Your task to perform on an android device: turn off improve location accuracy Image 0: 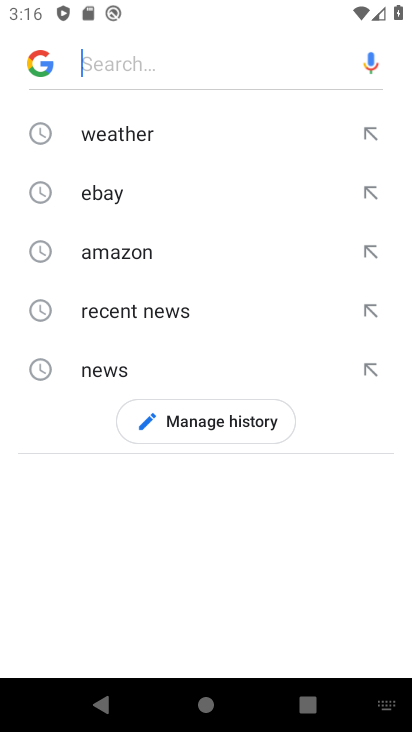
Step 0: press home button
Your task to perform on an android device: turn off improve location accuracy Image 1: 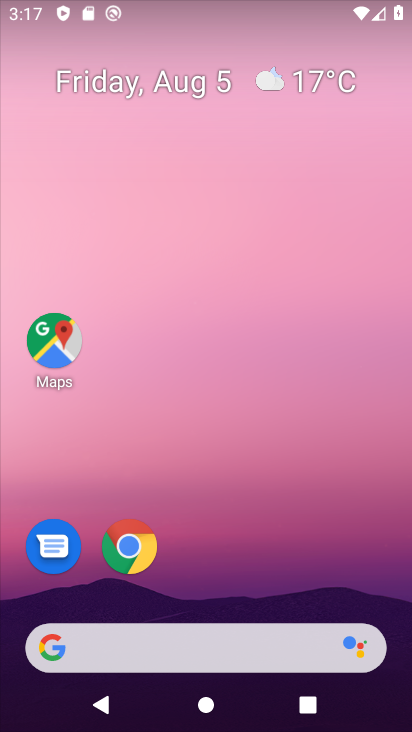
Step 1: drag from (311, 528) to (338, 137)
Your task to perform on an android device: turn off improve location accuracy Image 2: 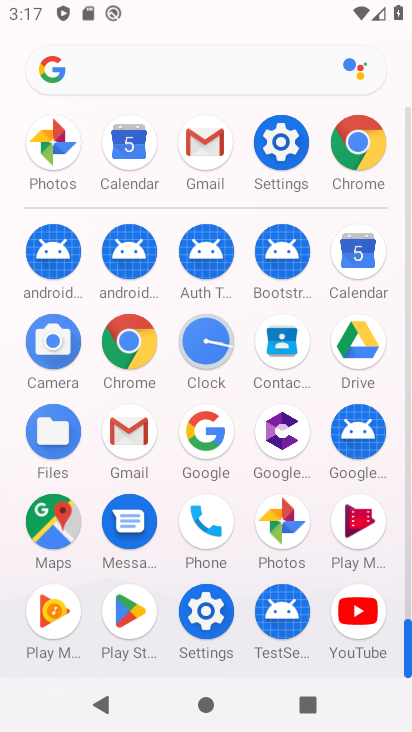
Step 2: click (283, 146)
Your task to perform on an android device: turn off improve location accuracy Image 3: 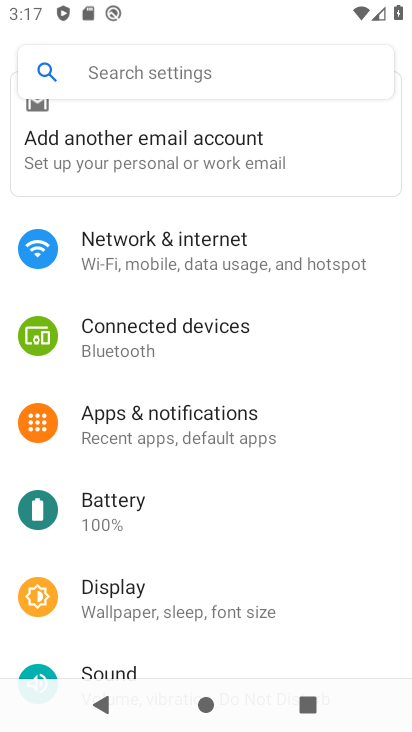
Step 3: drag from (321, 515) to (322, 355)
Your task to perform on an android device: turn off improve location accuracy Image 4: 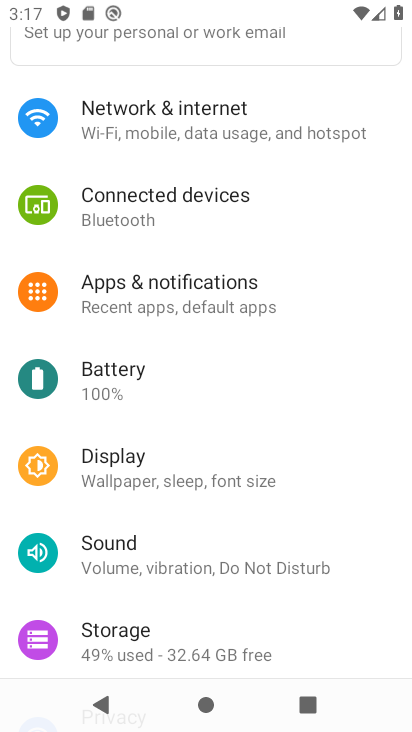
Step 4: drag from (336, 541) to (334, 365)
Your task to perform on an android device: turn off improve location accuracy Image 5: 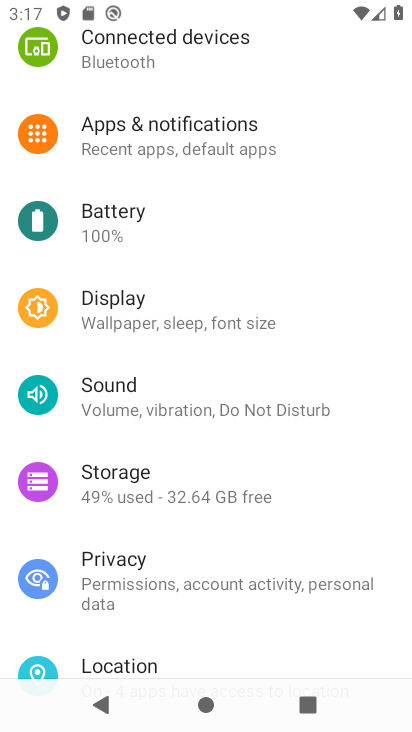
Step 5: drag from (354, 513) to (340, 368)
Your task to perform on an android device: turn off improve location accuracy Image 6: 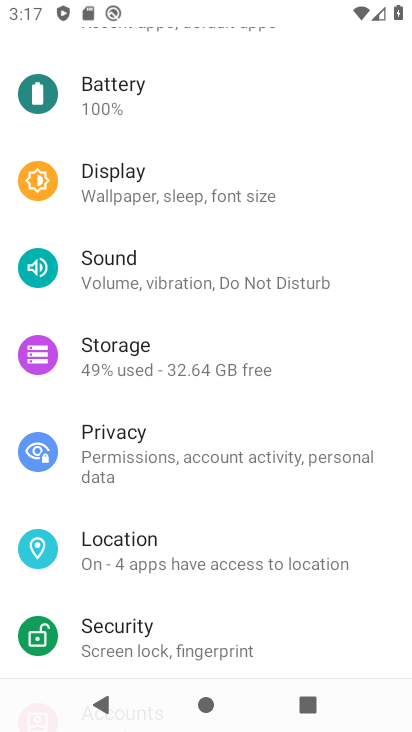
Step 6: drag from (359, 601) to (358, 435)
Your task to perform on an android device: turn off improve location accuracy Image 7: 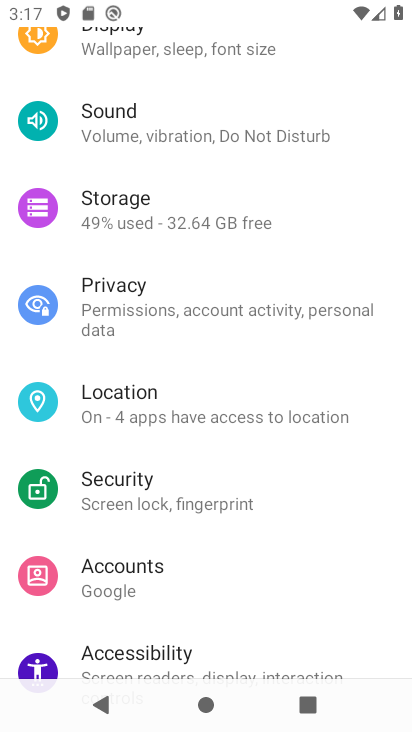
Step 7: drag from (368, 568) to (365, 393)
Your task to perform on an android device: turn off improve location accuracy Image 8: 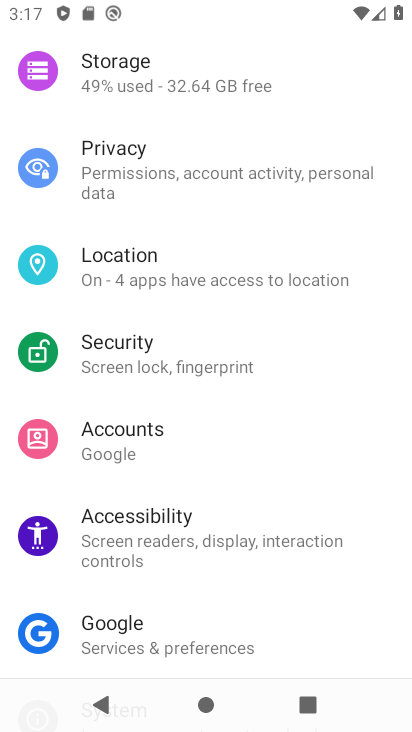
Step 8: drag from (357, 608) to (356, 437)
Your task to perform on an android device: turn off improve location accuracy Image 9: 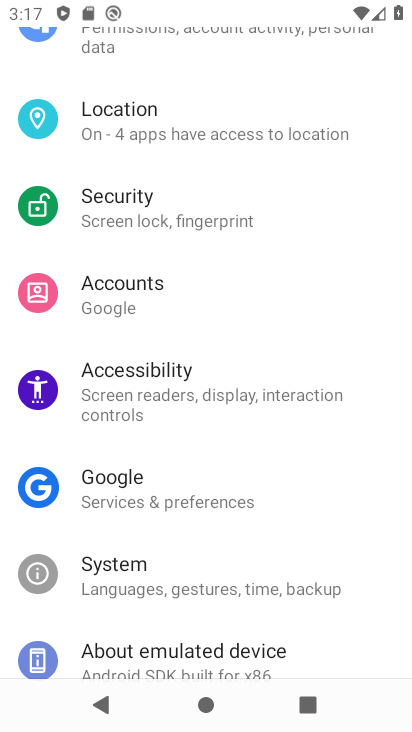
Step 9: drag from (348, 626) to (343, 492)
Your task to perform on an android device: turn off improve location accuracy Image 10: 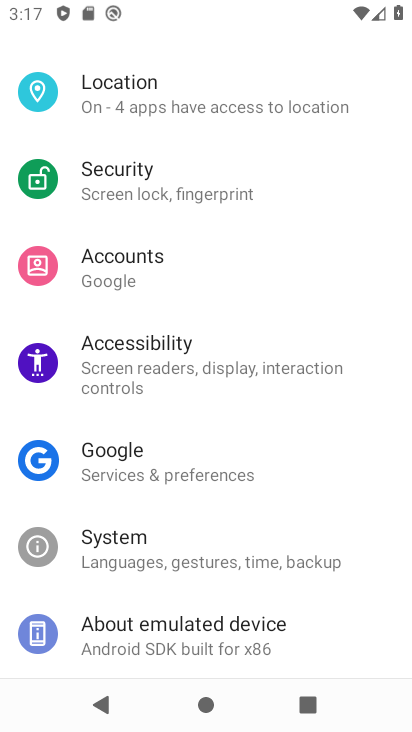
Step 10: drag from (356, 322) to (354, 491)
Your task to perform on an android device: turn off improve location accuracy Image 11: 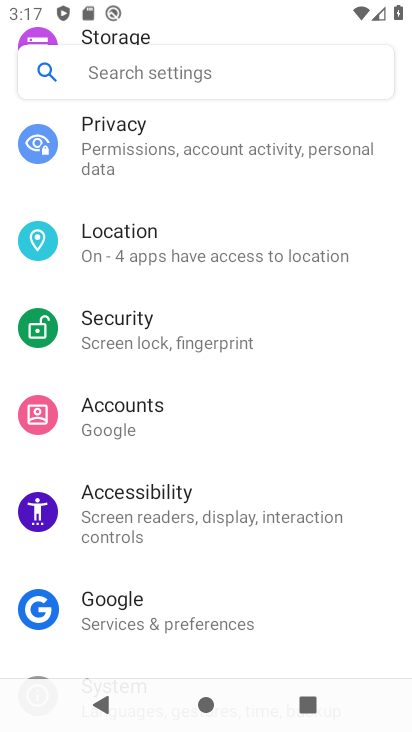
Step 11: drag from (361, 349) to (362, 512)
Your task to perform on an android device: turn off improve location accuracy Image 12: 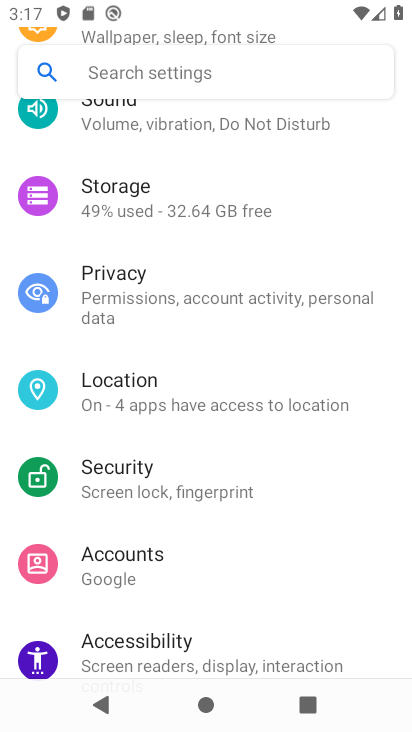
Step 12: drag from (366, 315) to (354, 466)
Your task to perform on an android device: turn off improve location accuracy Image 13: 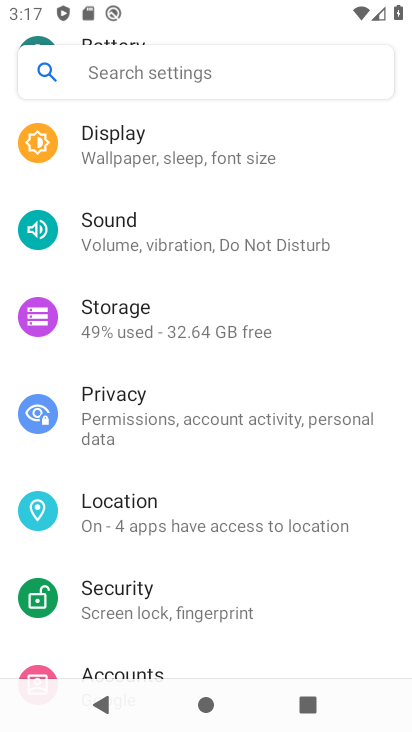
Step 13: click (339, 500)
Your task to perform on an android device: turn off improve location accuracy Image 14: 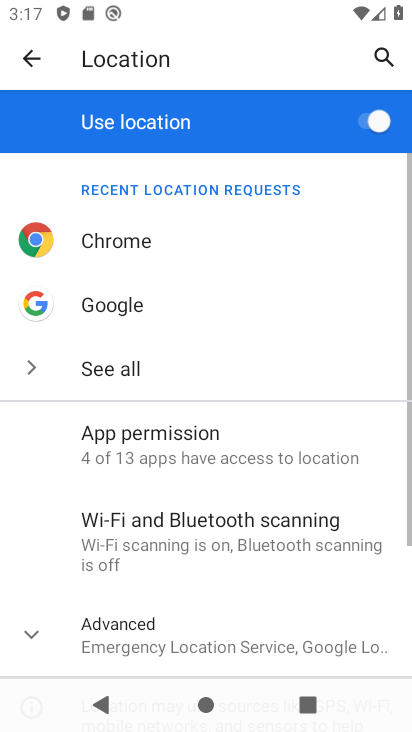
Step 14: click (219, 634)
Your task to perform on an android device: turn off improve location accuracy Image 15: 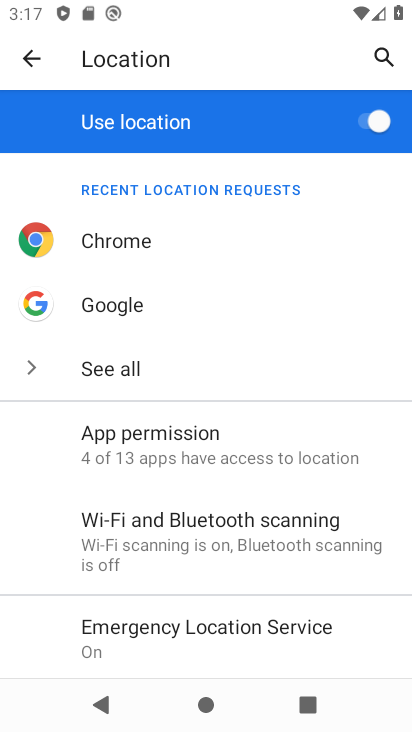
Step 15: drag from (308, 584) to (309, 371)
Your task to perform on an android device: turn off improve location accuracy Image 16: 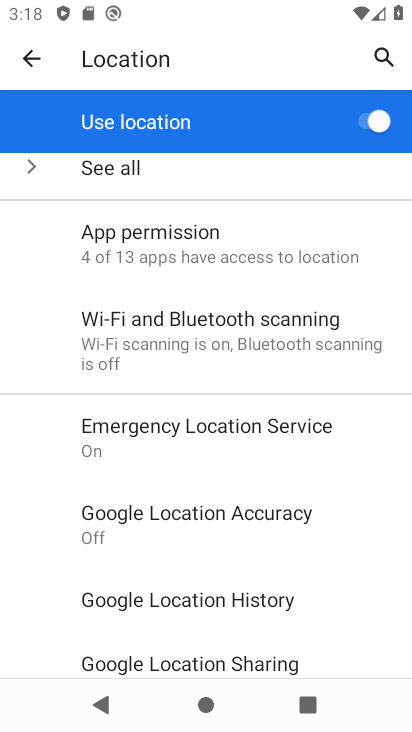
Step 16: drag from (342, 581) to (341, 427)
Your task to perform on an android device: turn off improve location accuracy Image 17: 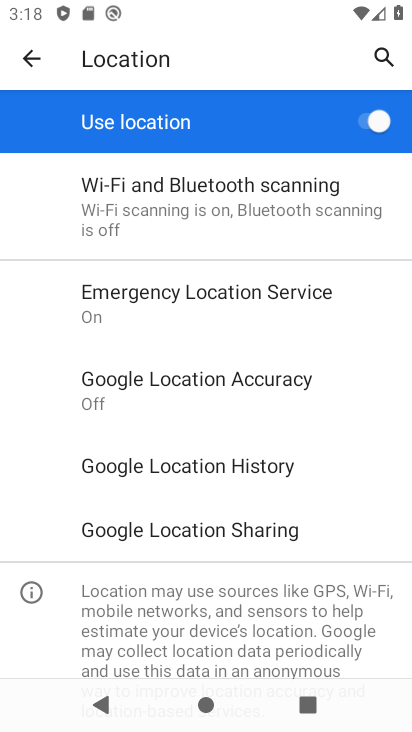
Step 17: click (247, 368)
Your task to perform on an android device: turn off improve location accuracy Image 18: 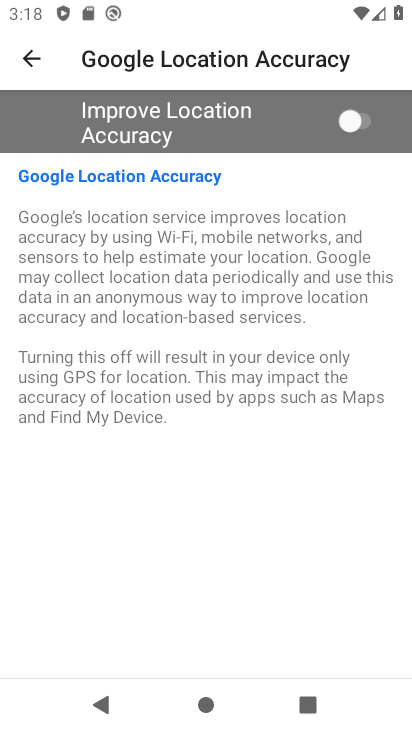
Step 18: task complete